Your task to perform on an android device: clear history in the chrome app Image 0: 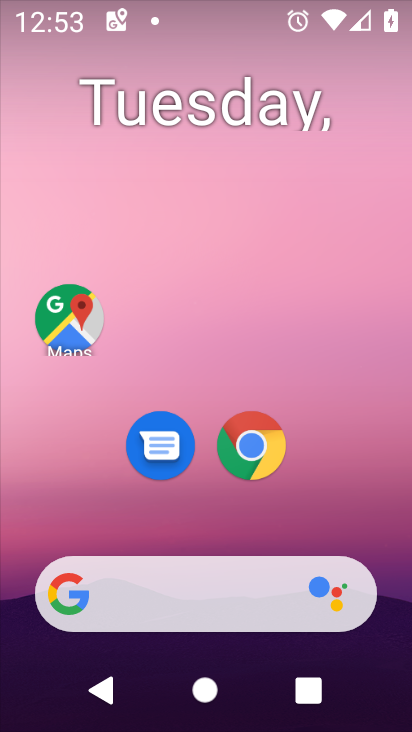
Step 0: drag from (257, 557) to (302, 178)
Your task to perform on an android device: clear history in the chrome app Image 1: 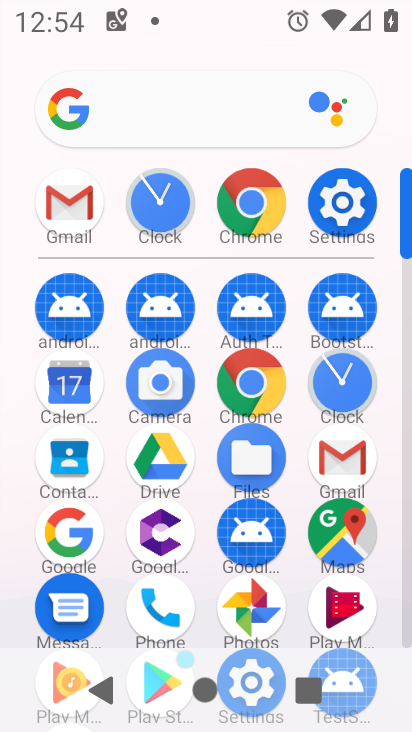
Step 1: click (252, 378)
Your task to perform on an android device: clear history in the chrome app Image 2: 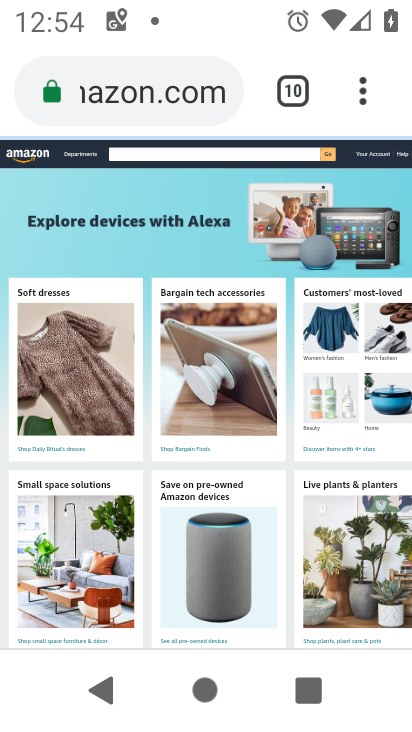
Step 2: click (360, 91)
Your task to perform on an android device: clear history in the chrome app Image 3: 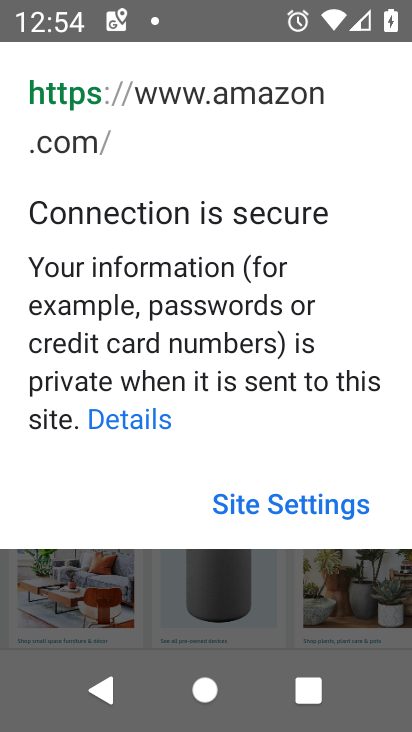
Step 3: press back button
Your task to perform on an android device: clear history in the chrome app Image 4: 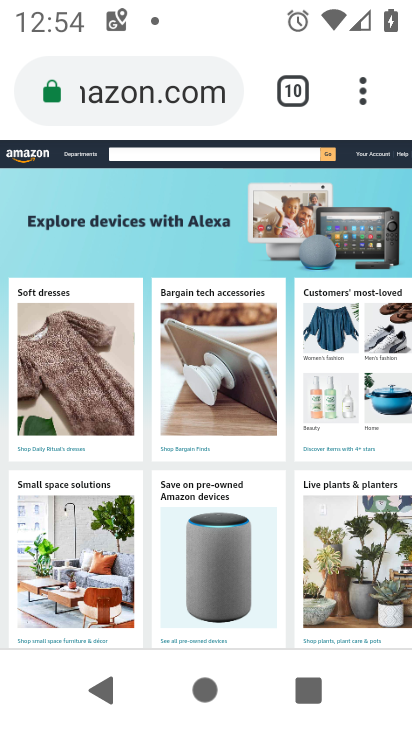
Step 4: click (380, 81)
Your task to perform on an android device: clear history in the chrome app Image 5: 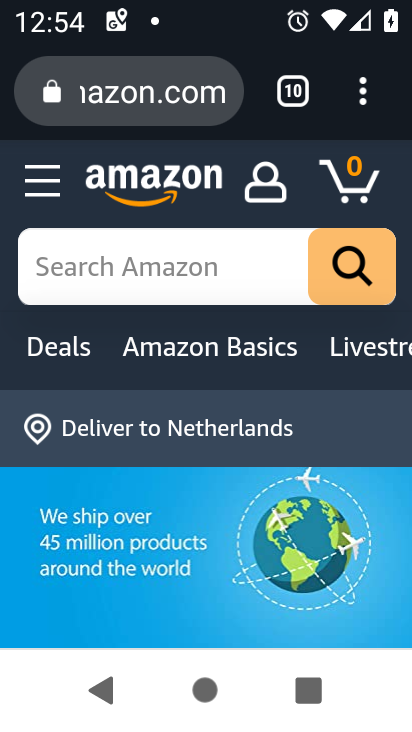
Step 5: click (380, 93)
Your task to perform on an android device: clear history in the chrome app Image 6: 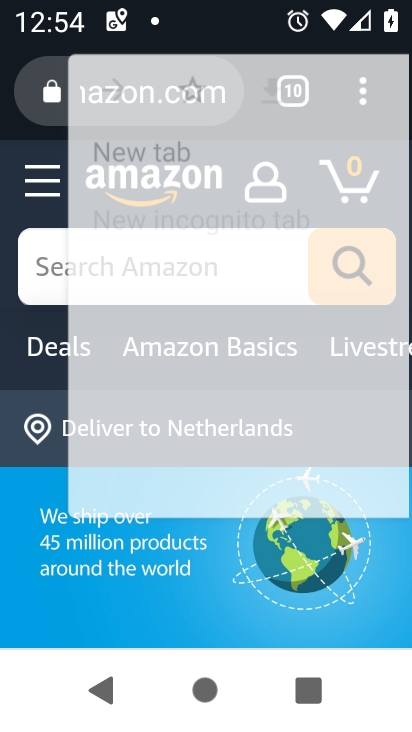
Step 6: click (380, 96)
Your task to perform on an android device: clear history in the chrome app Image 7: 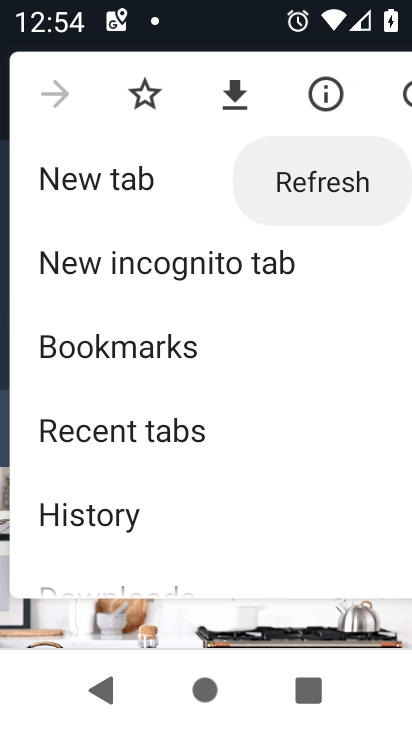
Step 7: click (205, 485)
Your task to perform on an android device: clear history in the chrome app Image 8: 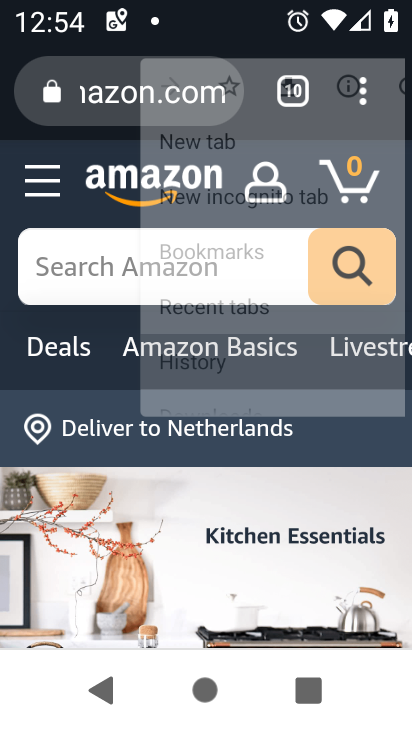
Step 8: drag from (202, 493) to (229, 376)
Your task to perform on an android device: clear history in the chrome app Image 9: 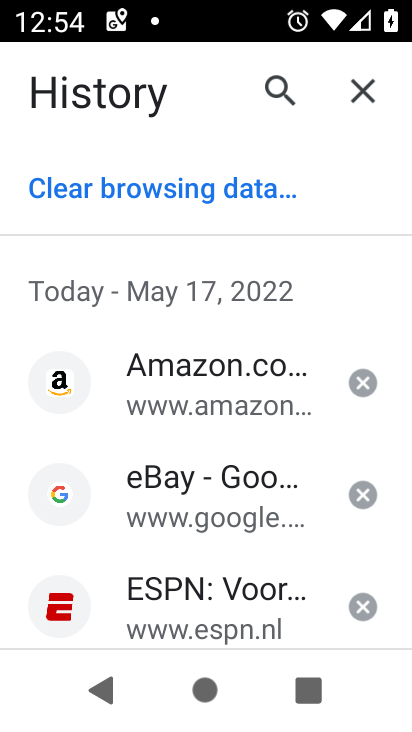
Step 9: click (113, 190)
Your task to perform on an android device: clear history in the chrome app Image 10: 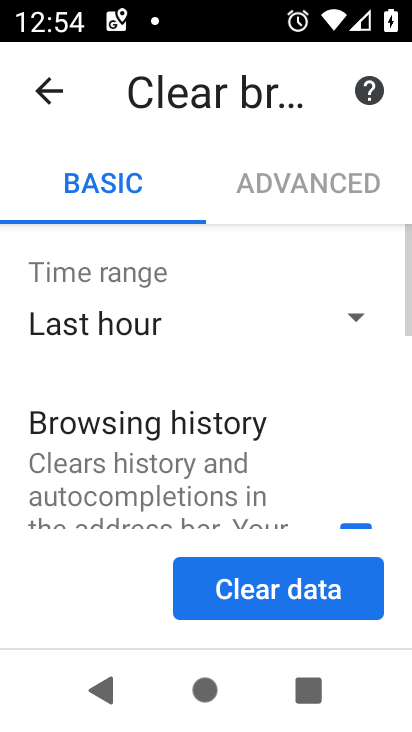
Step 10: click (326, 600)
Your task to perform on an android device: clear history in the chrome app Image 11: 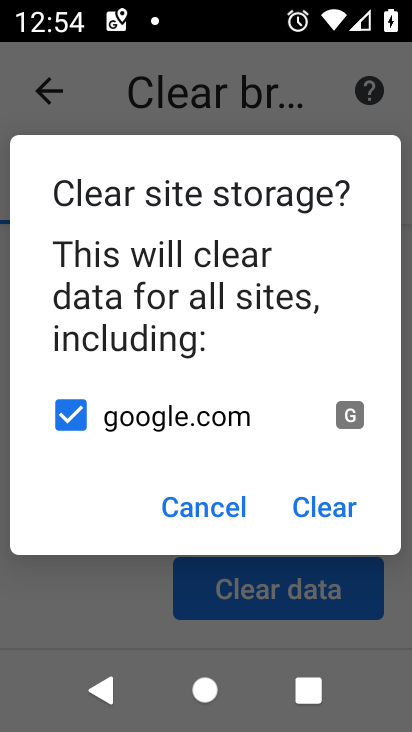
Step 11: click (327, 503)
Your task to perform on an android device: clear history in the chrome app Image 12: 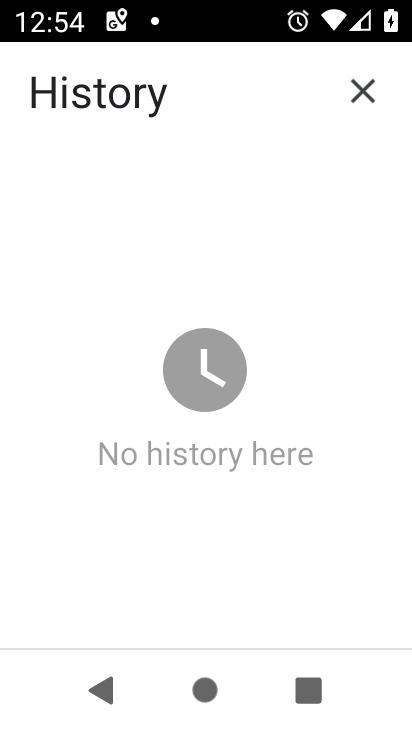
Step 12: task complete